Your task to perform on an android device: open a bookmark in the chrome app Image 0: 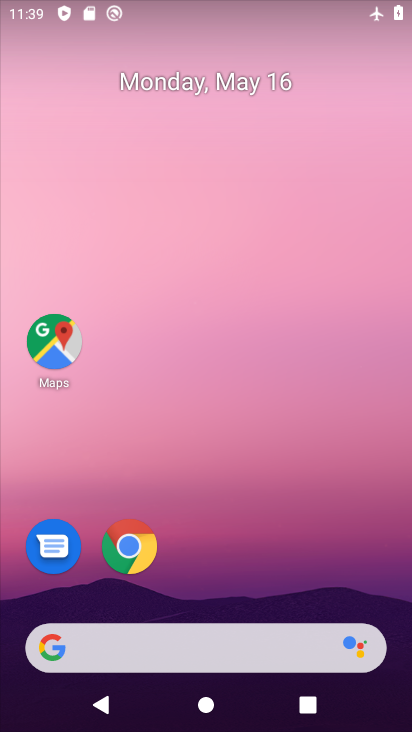
Step 0: click (128, 545)
Your task to perform on an android device: open a bookmark in the chrome app Image 1: 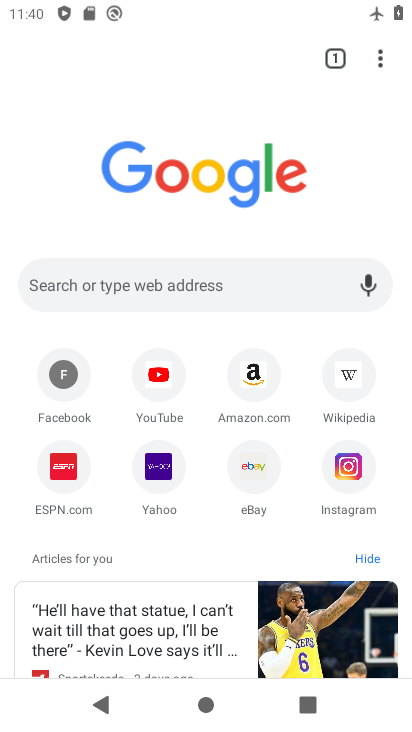
Step 1: click (378, 57)
Your task to perform on an android device: open a bookmark in the chrome app Image 2: 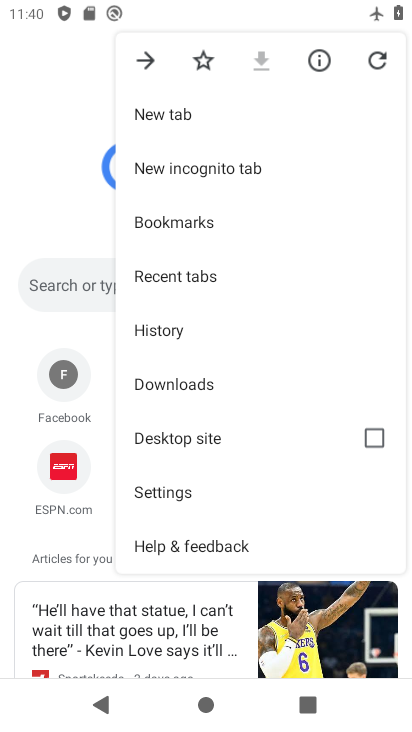
Step 2: click (162, 214)
Your task to perform on an android device: open a bookmark in the chrome app Image 3: 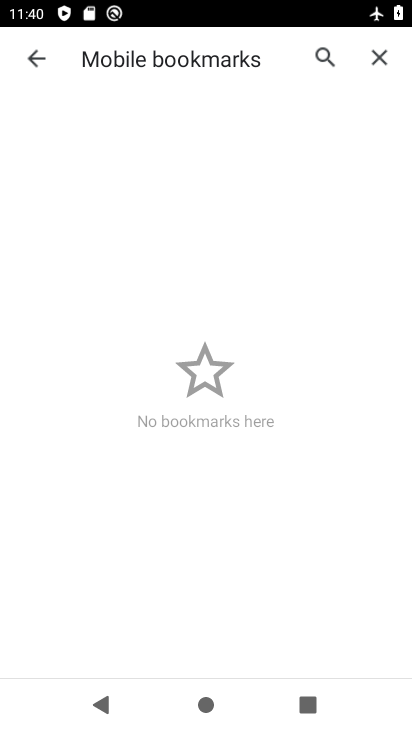
Step 3: task complete